Your task to perform on an android device: toggle translation in the chrome app Image 0: 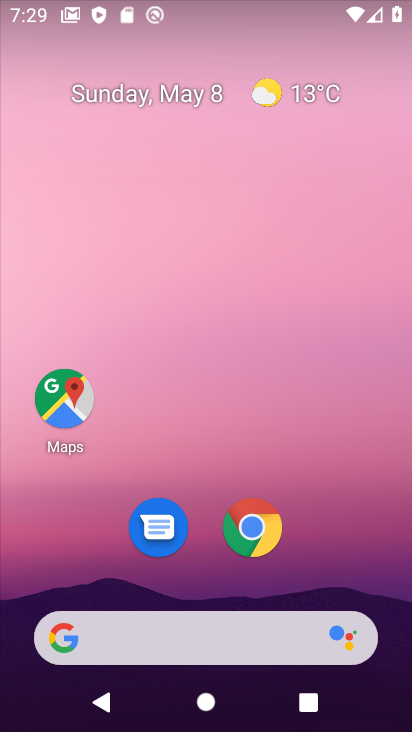
Step 0: click (270, 524)
Your task to perform on an android device: toggle translation in the chrome app Image 1: 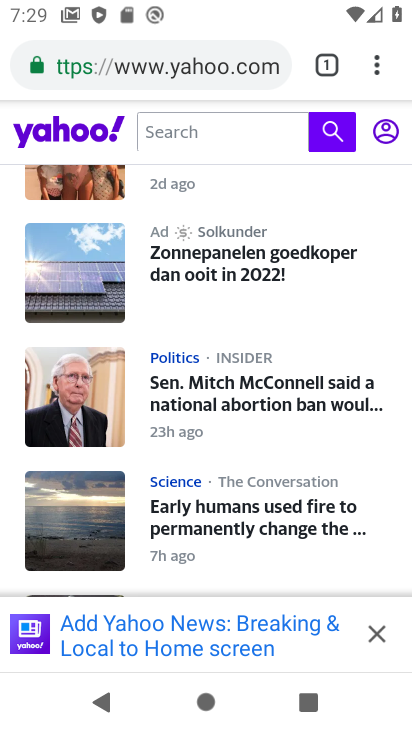
Step 1: click (369, 72)
Your task to perform on an android device: toggle translation in the chrome app Image 2: 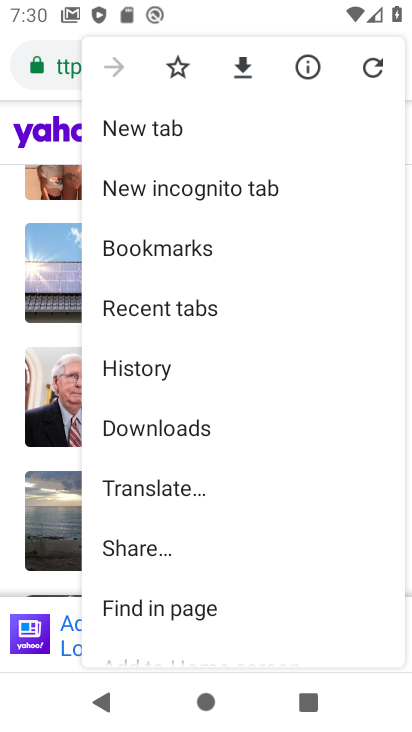
Step 2: drag from (236, 546) to (203, 133)
Your task to perform on an android device: toggle translation in the chrome app Image 3: 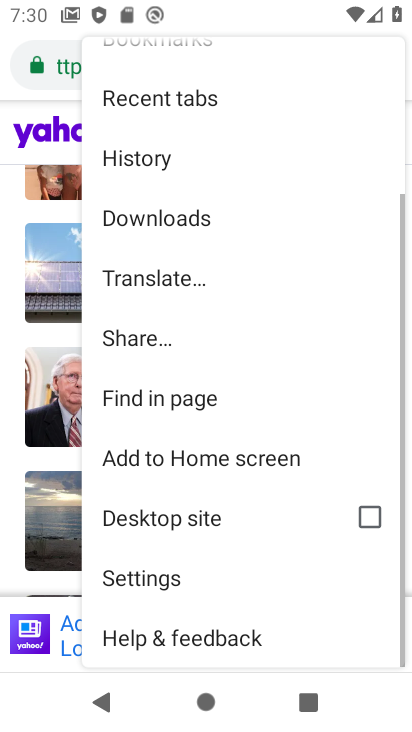
Step 3: click (140, 584)
Your task to perform on an android device: toggle translation in the chrome app Image 4: 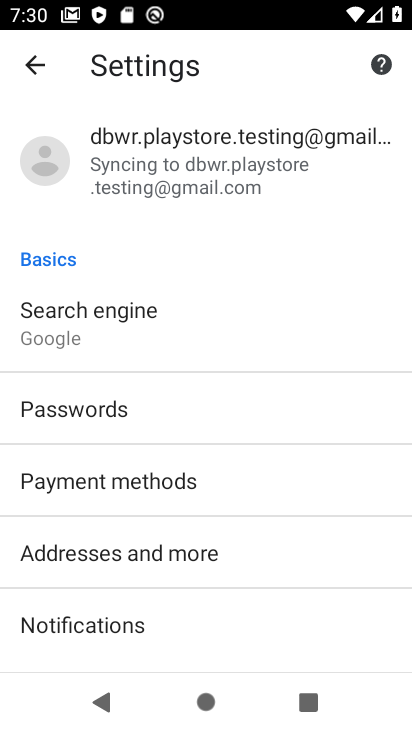
Step 4: drag from (162, 588) to (141, 39)
Your task to perform on an android device: toggle translation in the chrome app Image 5: 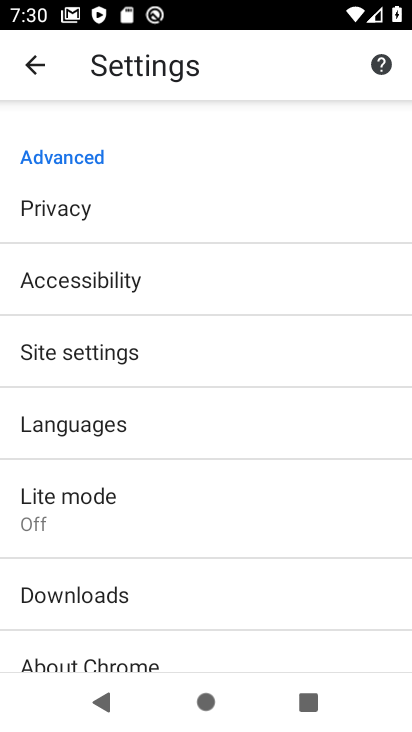
Step 5: drag from (122, 592) to (90, 157)
Your task to perform on an android device: toggle translation in the chrome app Image 6: 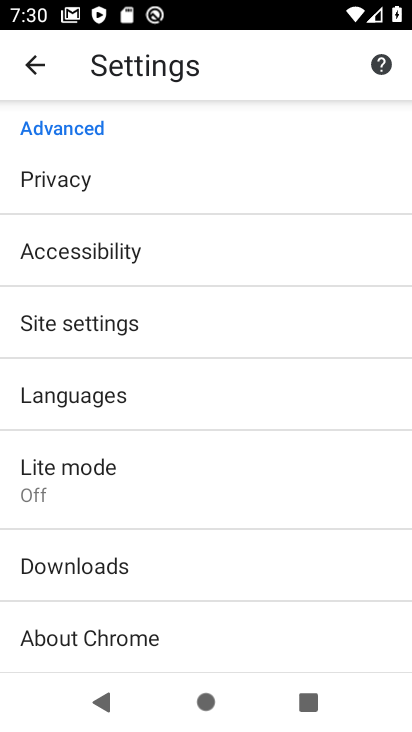
Step 6: click (94, 411)
Your task to perform on an android device: toggle translation in the chrome app Image 7: 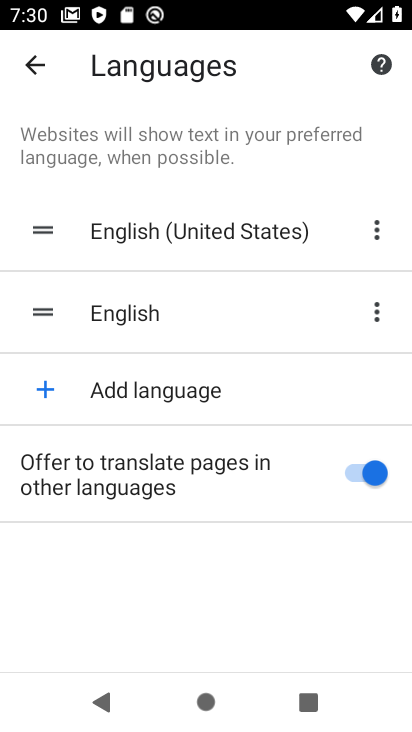
Step 7: click (355, 473)
Your task to perform on an android device: toggle translation in the chrome app Image 8: 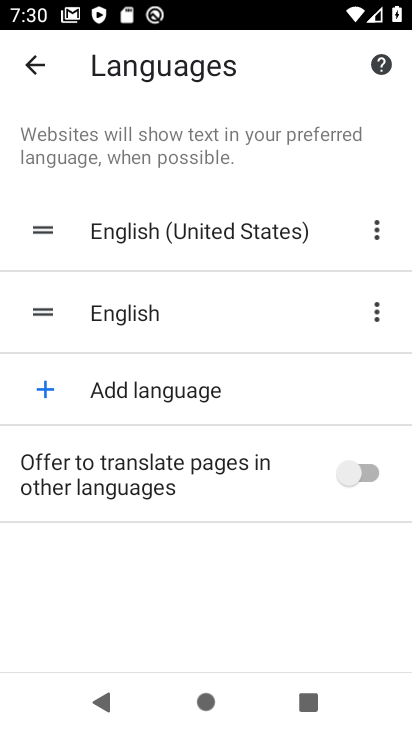
Step 8: task complete